Your task to perform on an android device: turn on translation in the chrome app Image 0: 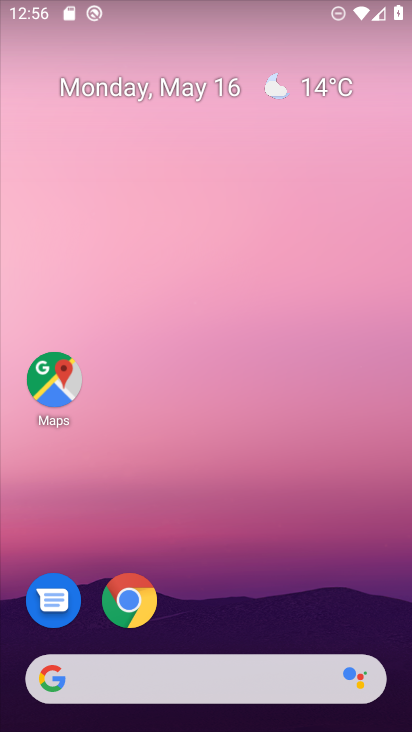
Step 0: click (127, 594)
Your task to perform on an android device: turn on translation in the chrome app Image 1: 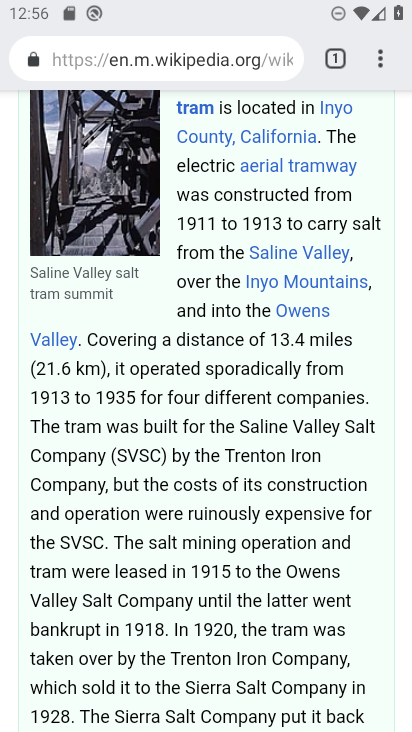
Step 1: click (379, 47)
Your task to perform on an android device: turn on translation in the chrome app Image 2: 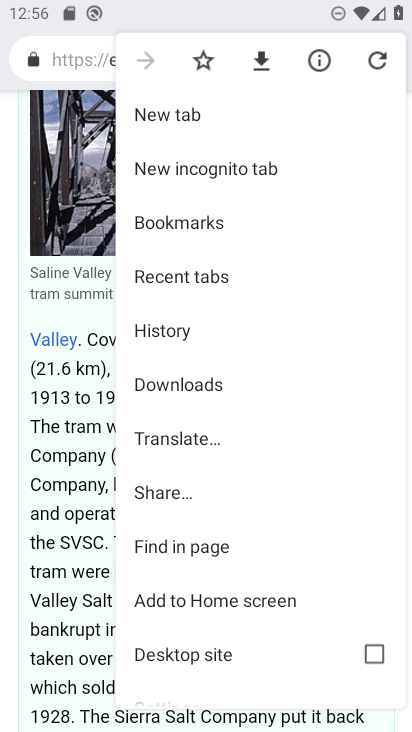
Step 2: drag from (264, 636) to (314, 136)
Your task to perform on an android device: turn on translation in the chrome app Image 3: 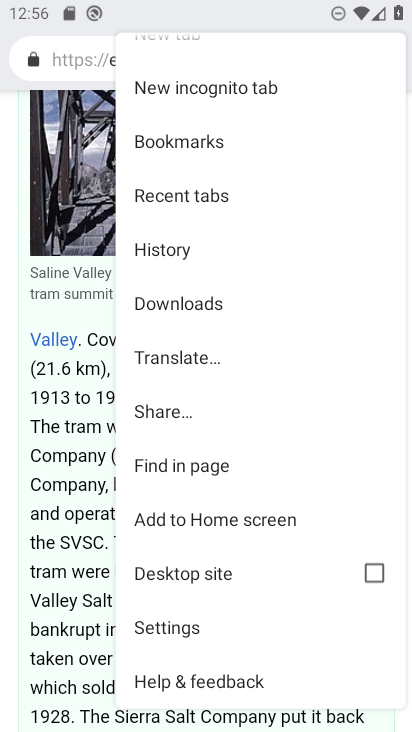
Step 3: click (207, 626)
Your task to perform on an android device: turn on translation in the chrome app Image 4: 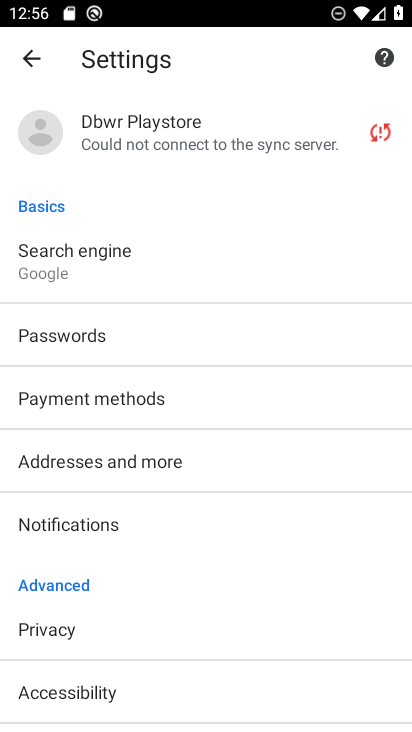
Step 4: click (200, 652)
Your task to perform on an android device: turn on translation in the chrome app Image 5: 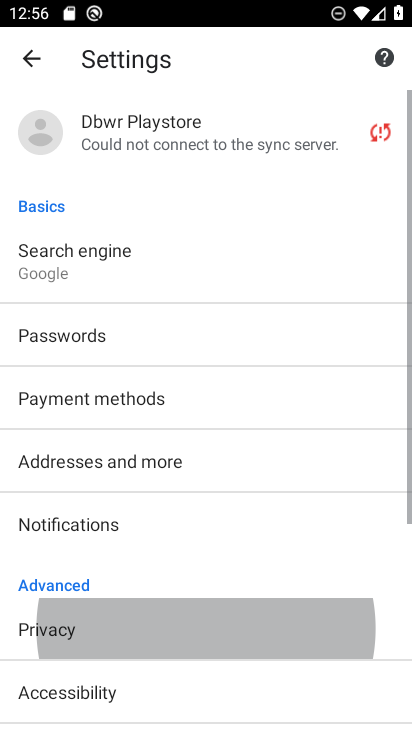
Step 5: drag from (204, 483) to (214, 140)
Your task to perform on an android device: turn on translation in the chrome app Image 6: 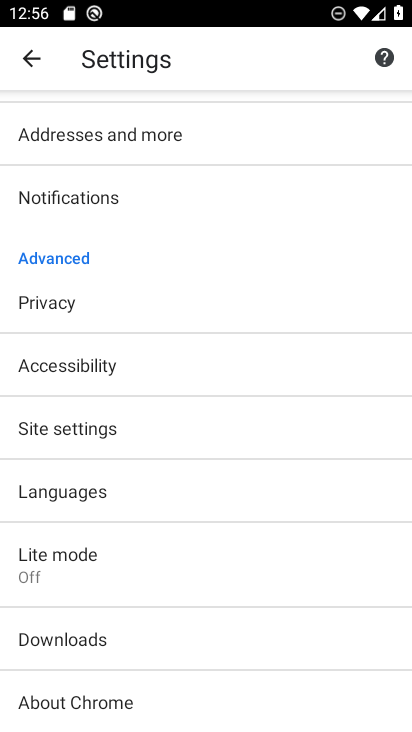
Step 6: click (128, 488)
Your task to perform on an android device: turn on translation in the chrome app Image 7: 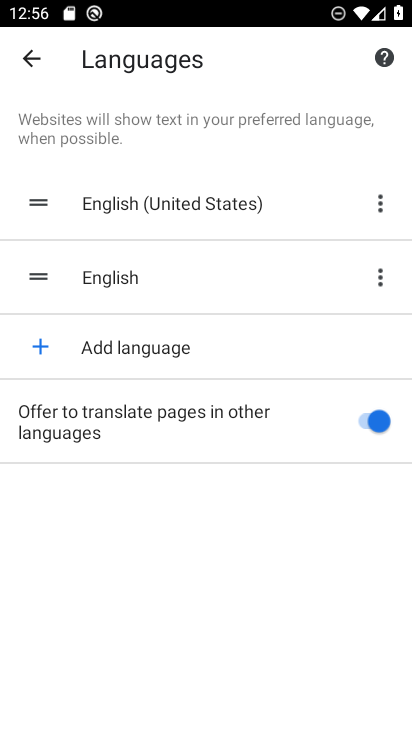
Step 7: task complete